Your task to perform on an android device: Open the web browser Image 0: 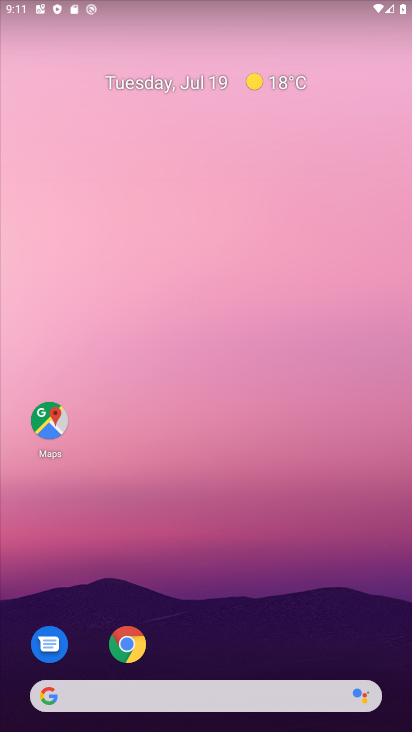
Step 0: drag from (219, 637) to (213, 279)
Your task to perform on an android device: Open the web browser Image 1: 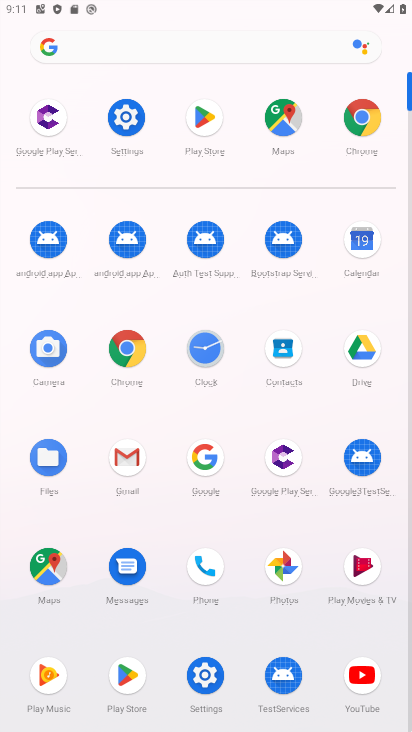
Step 1: click (364, 111)
Your task to perform on an android device: Open the web browser Image 2: 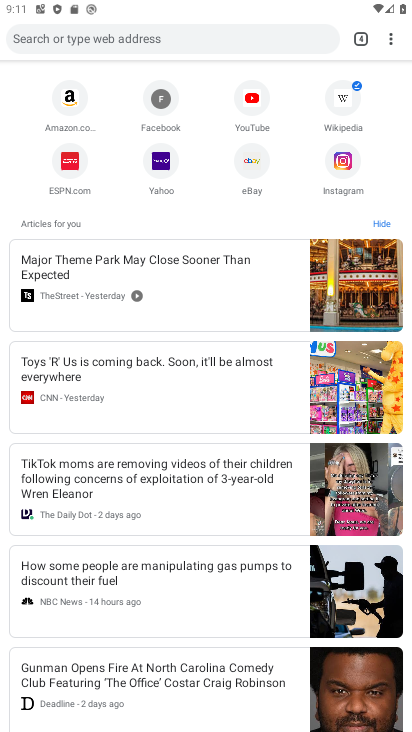
Step 2: task complete